Your task to perform on an android device: What is the news today? Image 0: 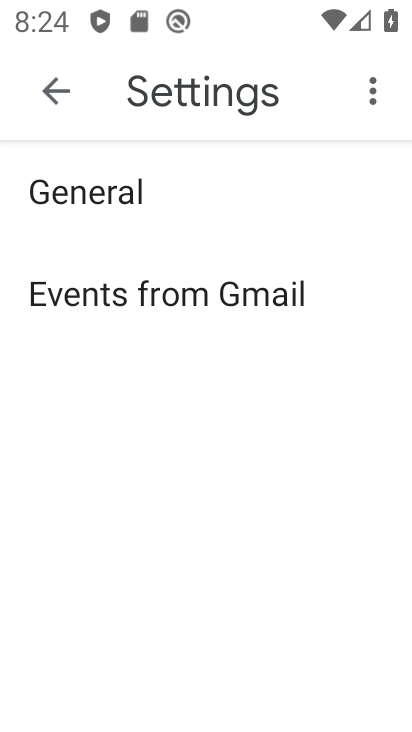
Step 0: press home button
Your task to perform on an android device: What is the news today? Image 1: 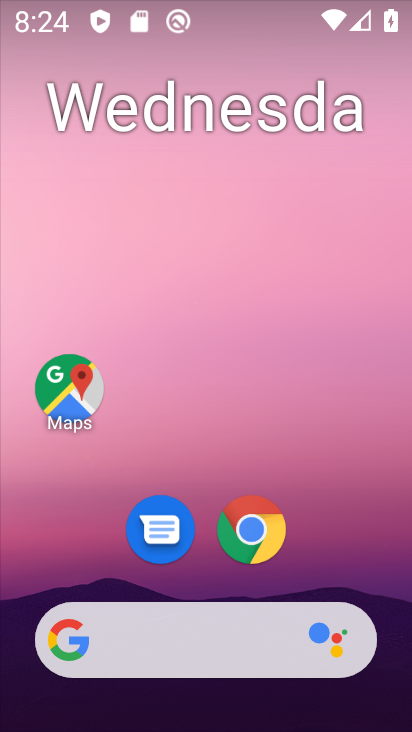
Step 1: task complete